Your task to perform on an android device: change the clock style Image 0: 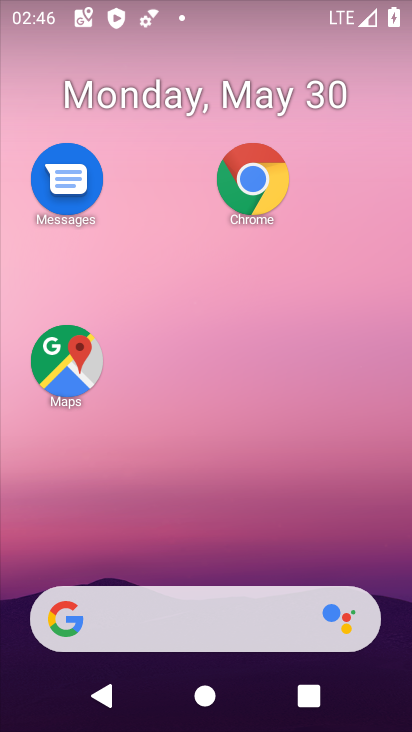
Step 0: drag from (209, 547) to (226, 68)
Your task to perform on an android device: change the clock style Image 1: 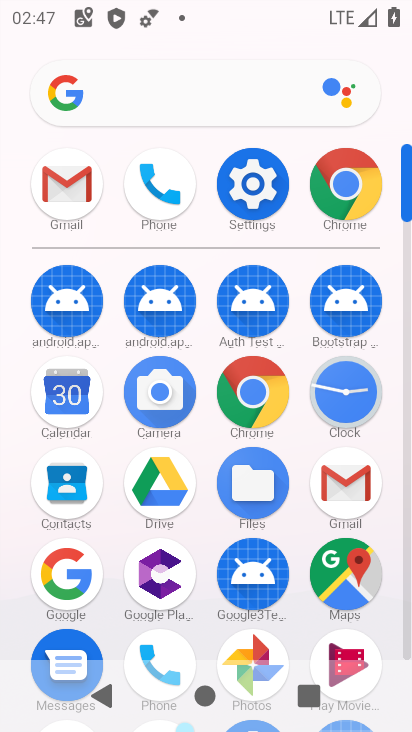
Step 1: drag from (127, 522) to (197, 81)
Your task to perform on an android device: change the clock style Image 2: 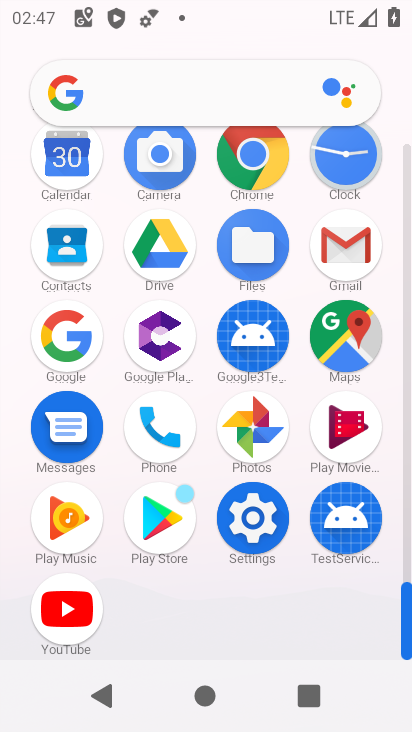
Step 2: click (329, 148)
Your task to perform on an android device: change the clock style Image 3: 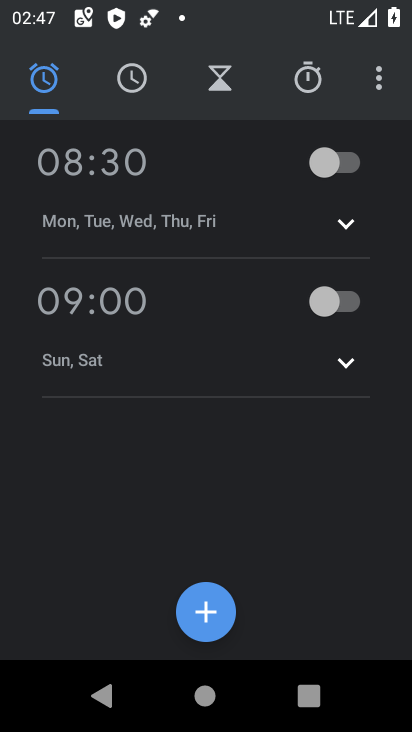
Step 3: click (374, 80)
Your task to perform on an android device: change the clock style Image 4: 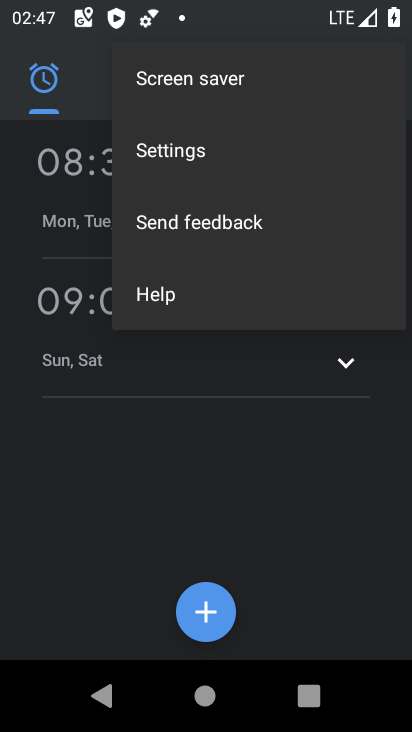
Step 4: click (251, 162)
Your task to perform on an android device: change the clock style Image 5: 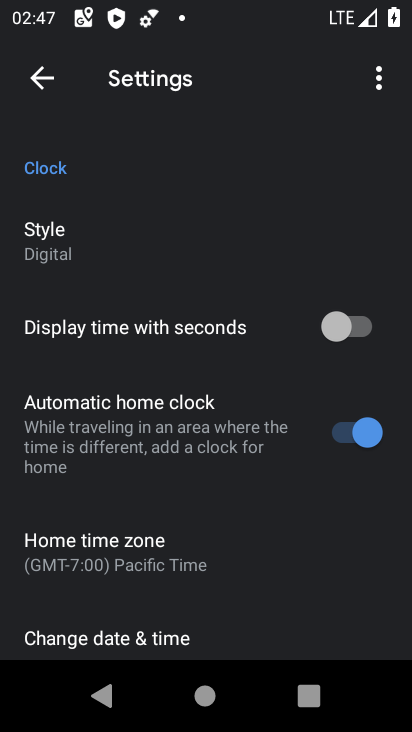
Step 5: click (82, 244)
Your task to perform on an android device: change the clock style Image 6: 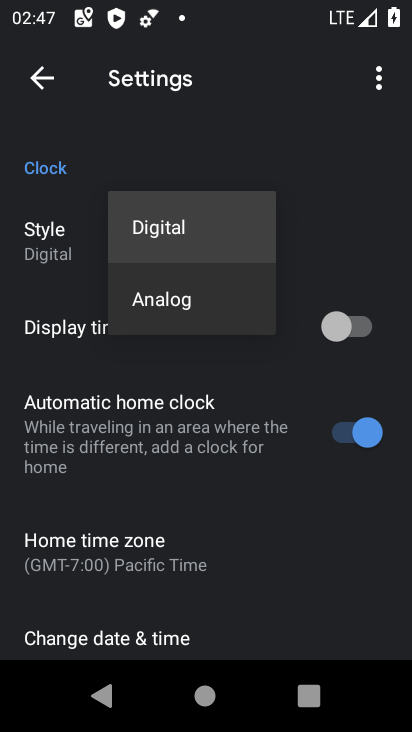
Step 6: click (150, 310)
Your task to perform on an android device: change the clock style Image 7: 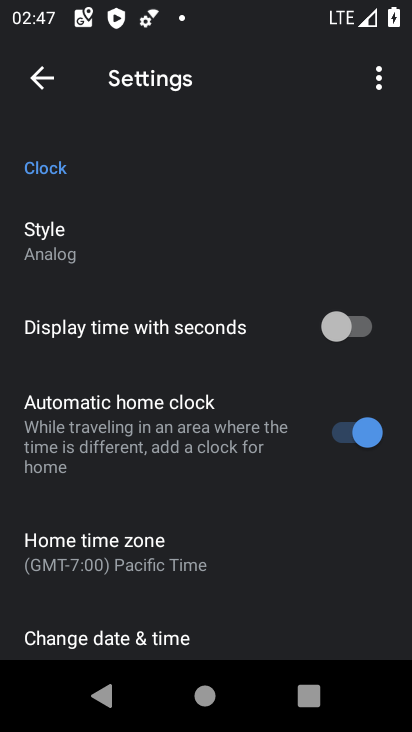
Step 7: task complete